Your task to perform on an android device: Open location settings Image 0: 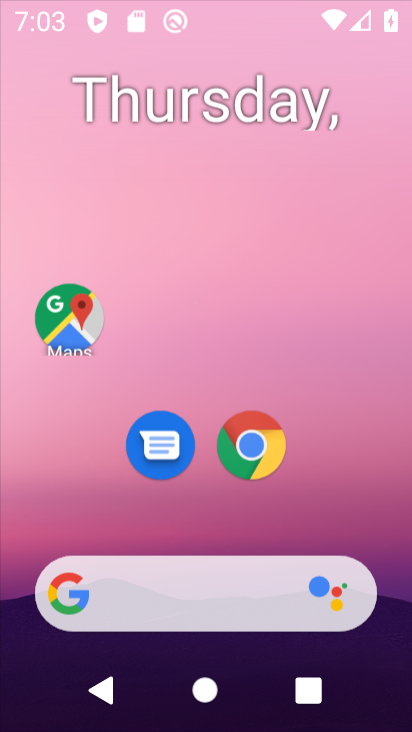
Step 0: click (280, 455)
Your task to perform on an android device: Open location settings Image 1: 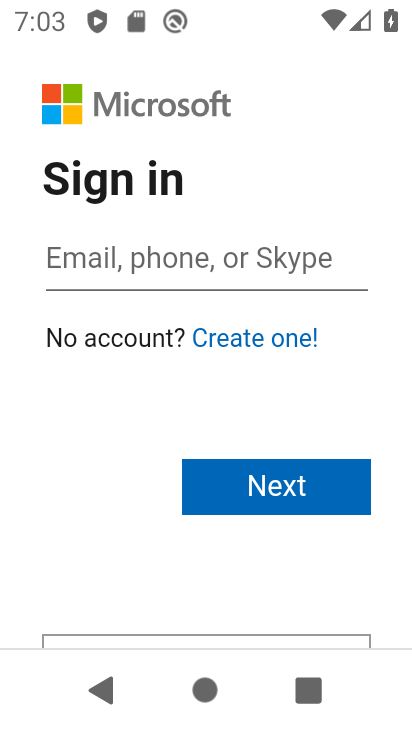
Step 1: press home button
Your task to perform on an android device: Open location settings Image 2: 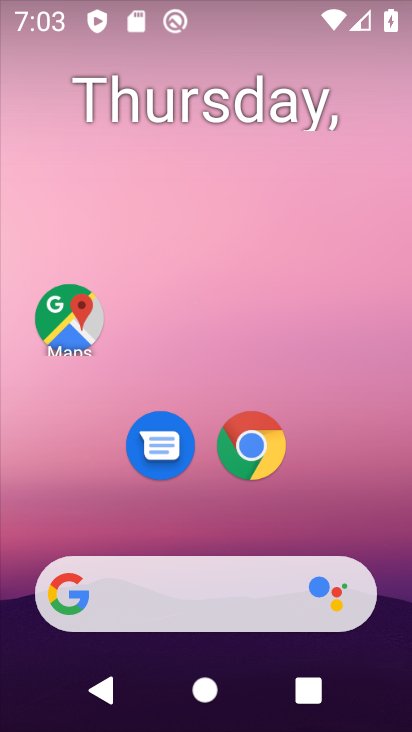
Step 2: drag from (364, 480) to (254, 128)
Your task to perform on an android device: Open location settings Image 3: 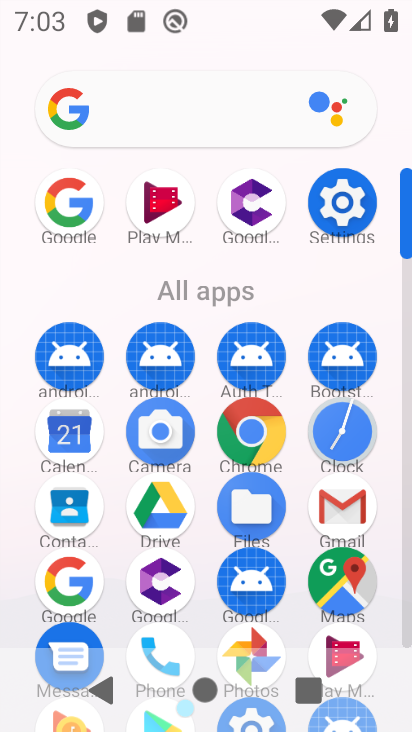
Step 3: click (352, 195)
Your task to perform on an android device: Open location settings Image 4: 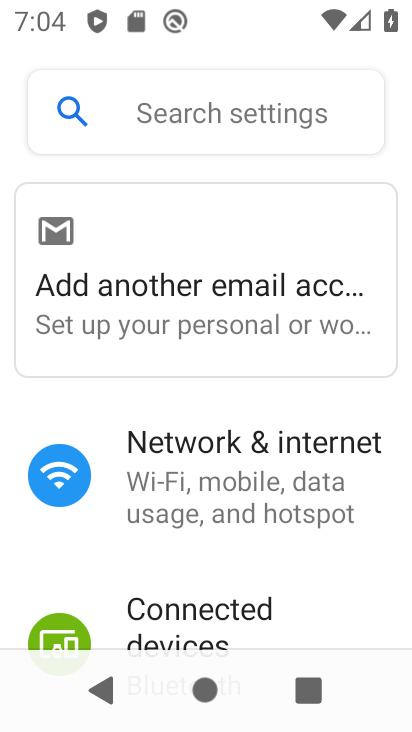
Step 4: drag from (207, 605) to (212, 222)
Your task to perform on an android device: Open location settings Image 5: 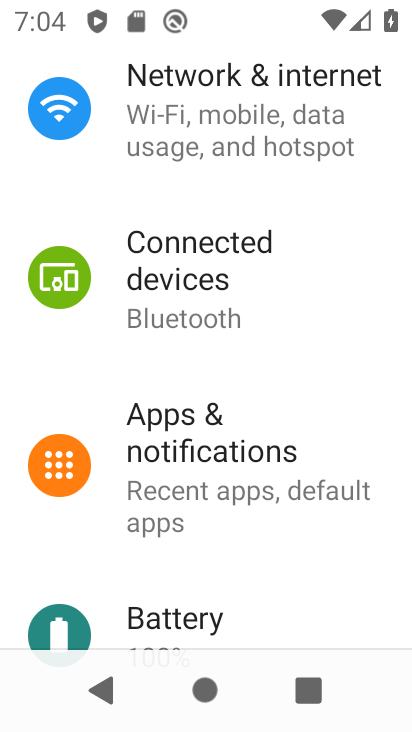
Step 5: drag from (247, 557) to (206, 145)
Your task to perform on an android device: Open location settings Image 6: 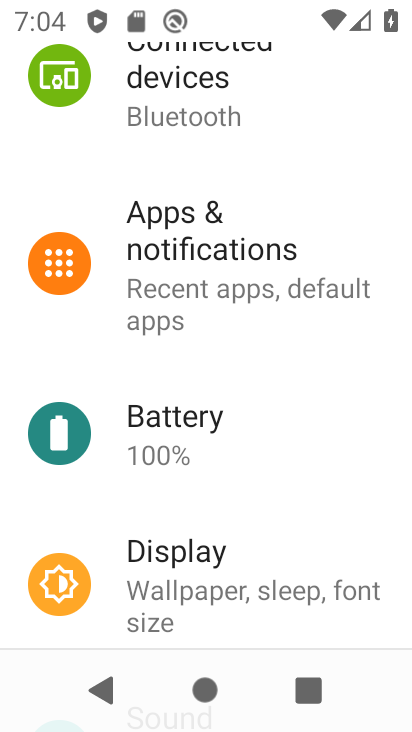
Step 6: drag from (192, 592) to (222, 176)
Your task to perform on an android device: Open location settings Image 7: 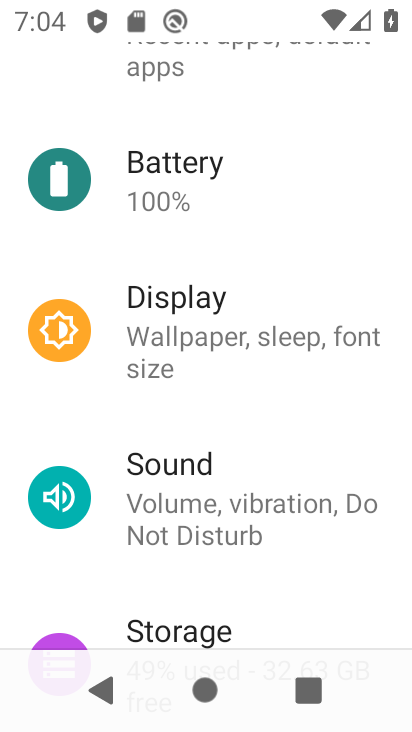
Step 7: drag from (254, 360) to (292, 152)
Your task to perform on an android device: Open location settings Image 8: 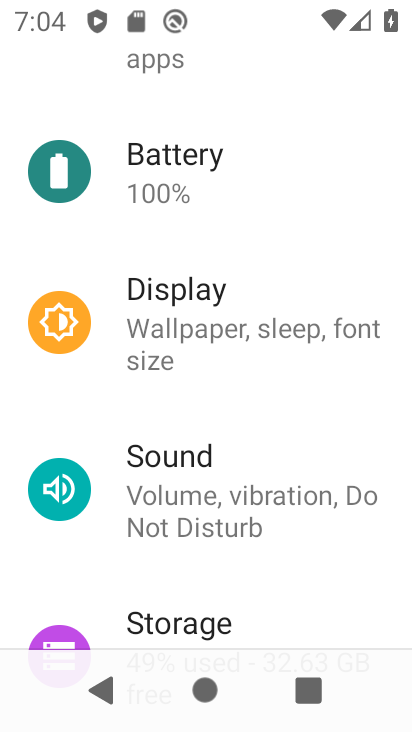
Step 8: drag from (247, 596) to (280, 241)
Your task to perform on an android device: Open location settings Image 9: 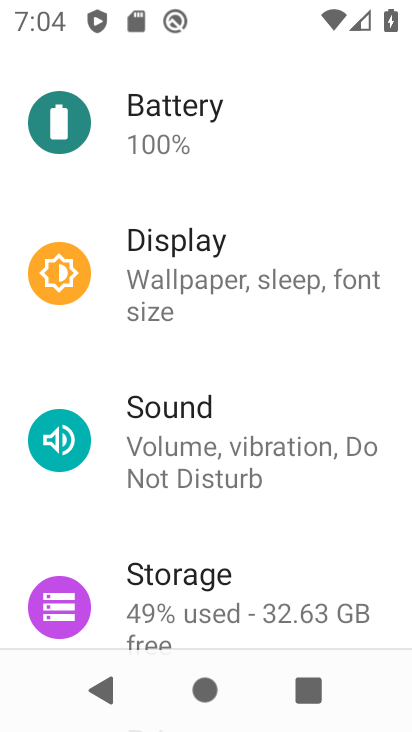
Step 9: drag from (203, 572) to (257, 249)
Your task to perform on an android device: Open location settings Image 10: 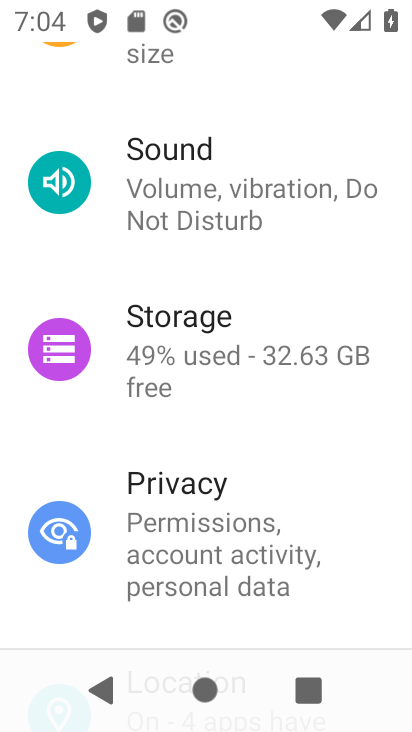
Step 10: drag from (287, 505) to (363, 135)
Your task to perform on an android device: Open location settings Image 11: 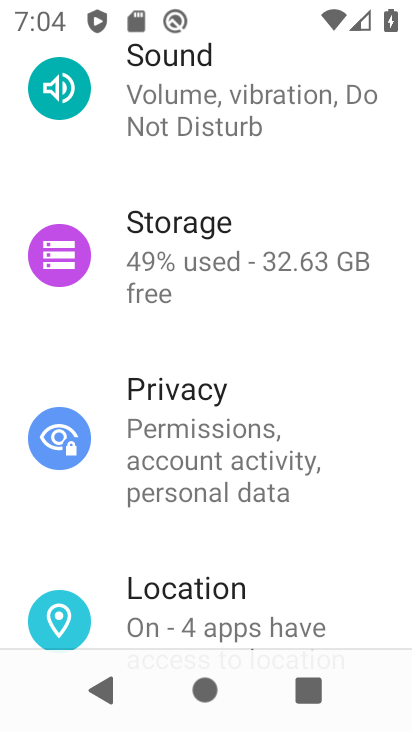
Step 11: click (212, 639)
Your task to perform on an android device: Open location settings Image 12: 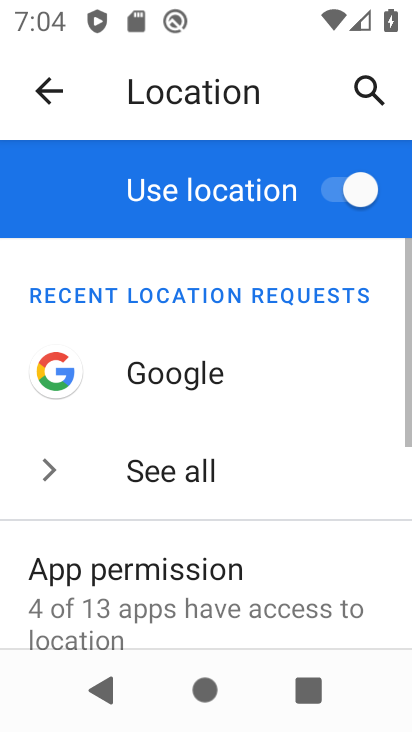
Step 12: task complete